Your task to perform on an android device: What is the capital of Canada? Image 0: 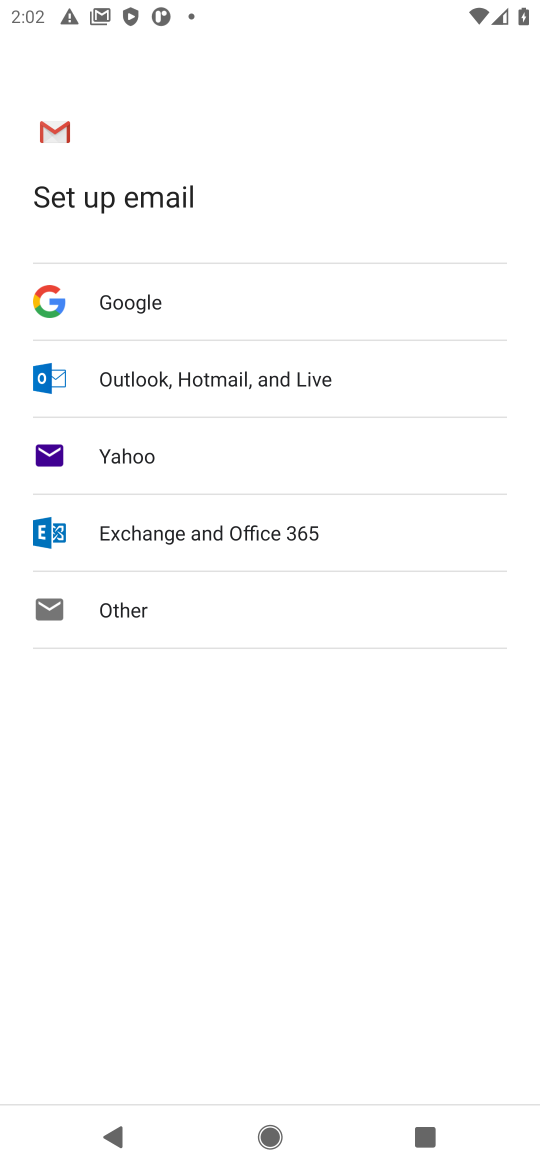
Step 0: press home button
Your task to perform on an android device: What is the capital of Canada? Image 1: 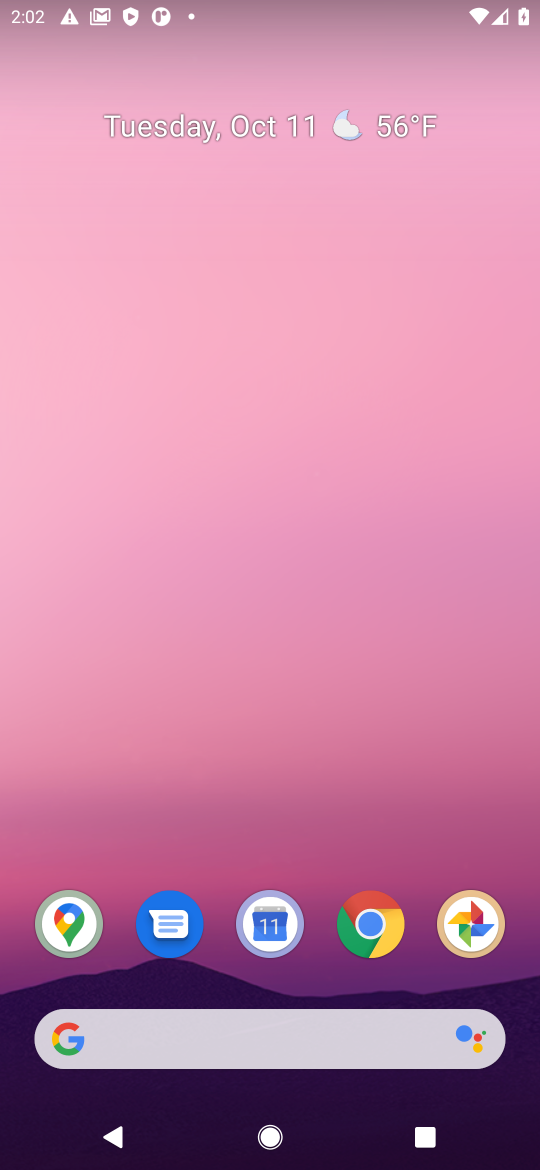
Step 1: drag from (313, 1007) to (321, 290)
Your task to perform on an android device: What is the capital of Canada? Image 2: 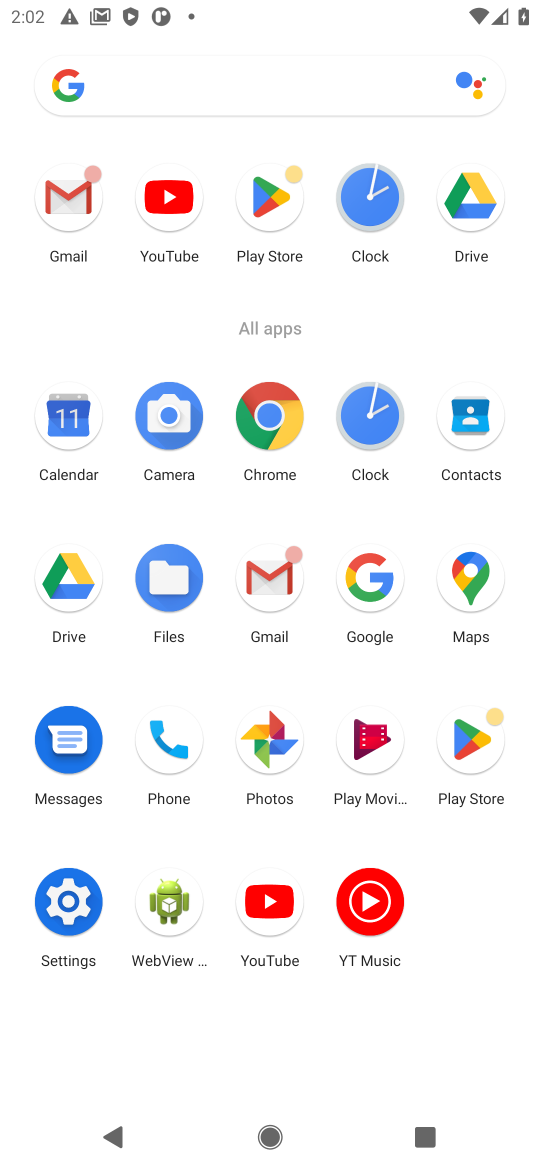
Step 2: click (375, 570)
Your task to perform on an android device: What is the capital of Canada? Image 3: 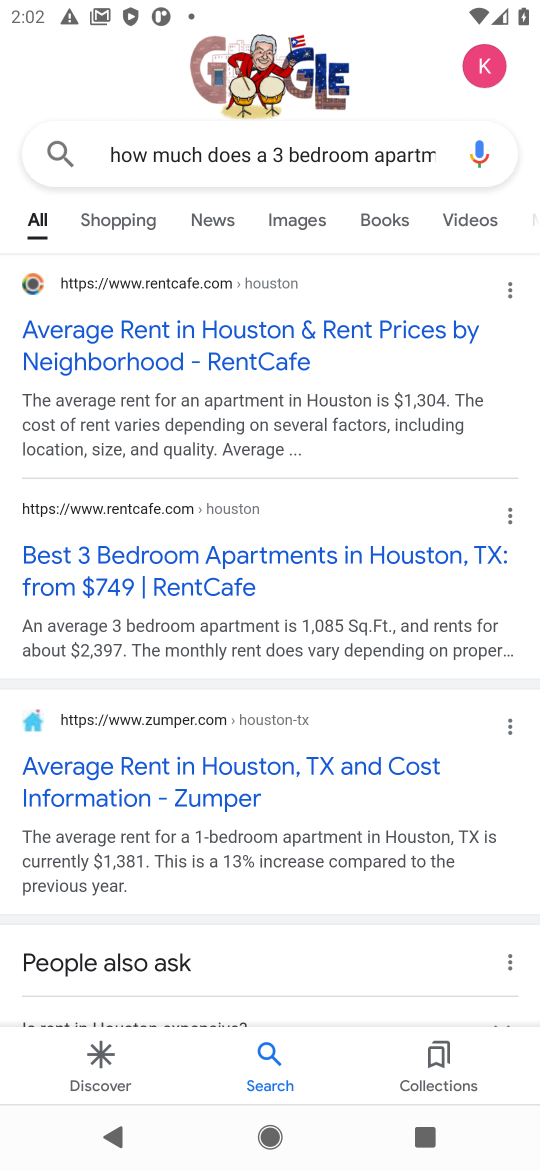
Step 3: click (306, 162)
Your task to perform on an android device: What is the capital of Canada? Image 4: 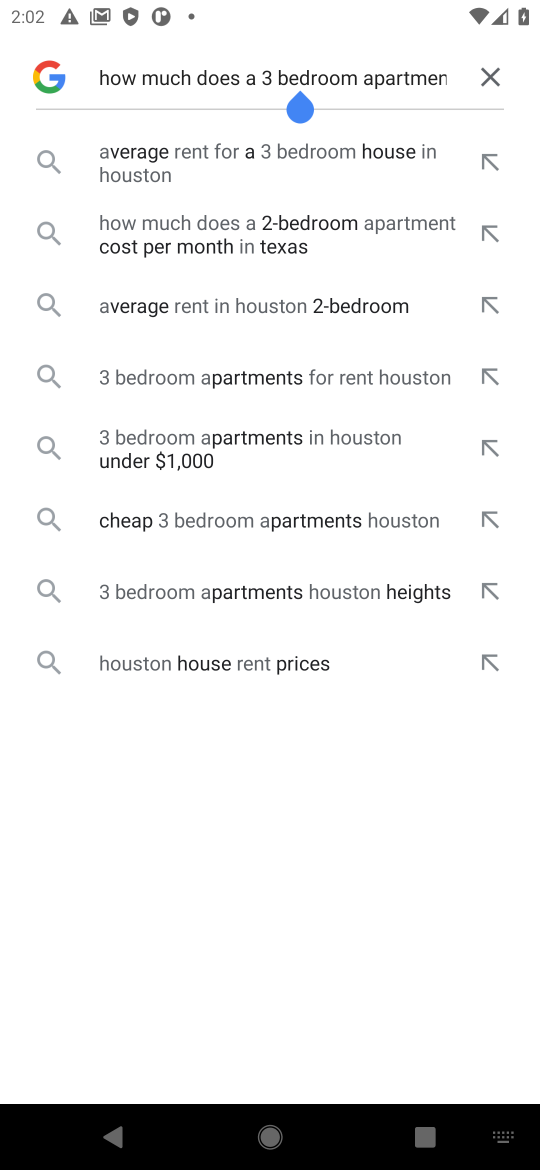
Step 4: click (497, 62)
Your task to perform on an android device: What is the capital of Canada? Image 5: 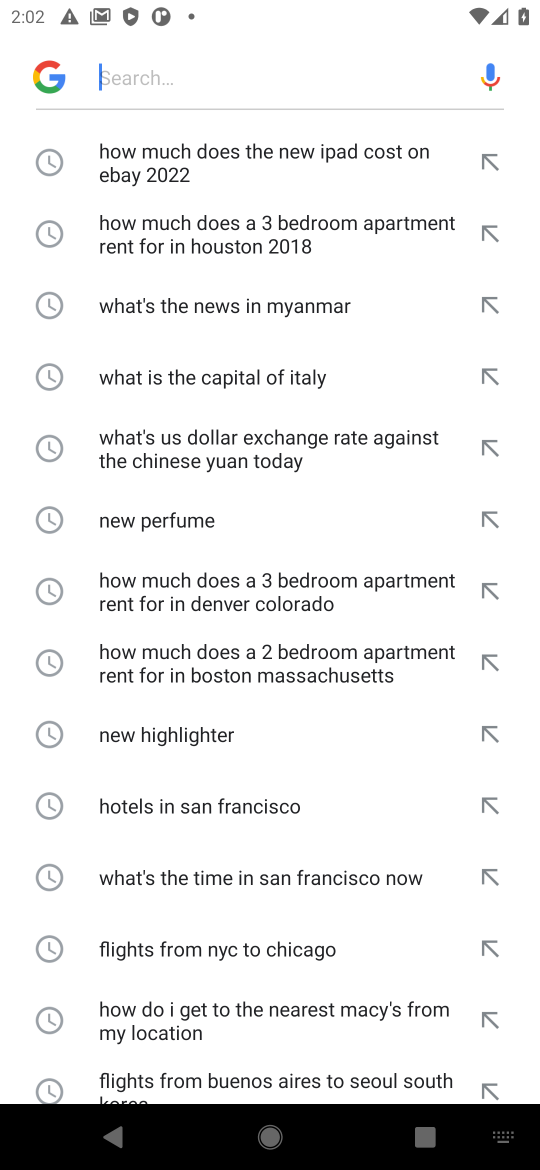
Step 5: type "What is the capital of Canada?"
Your task to perform on an android device: What is the capital of Canada? Image 6: 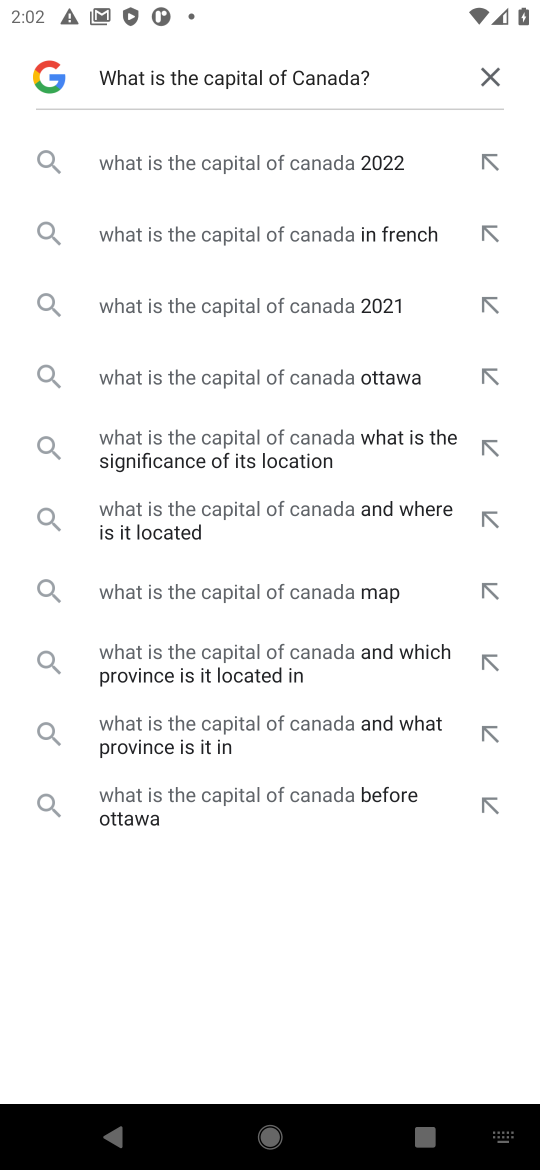
Step 6: type ""
Your task to perform on an android device: What is the capital of Canada? Image 7: 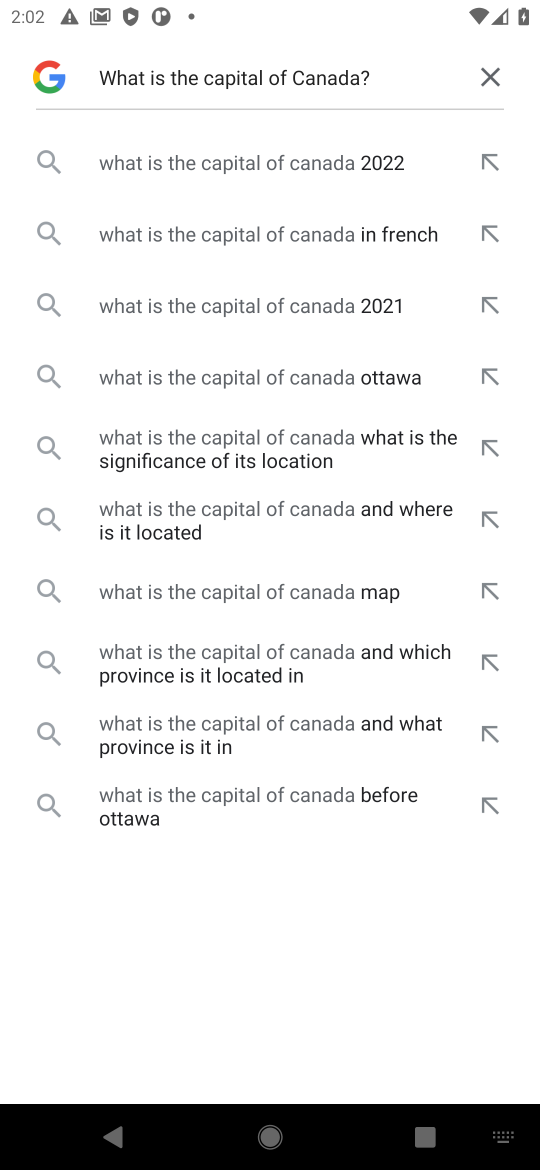
Step 7: click (280, 164)
Your task to perform on an android device: What is the capital of Canada? Image 8: 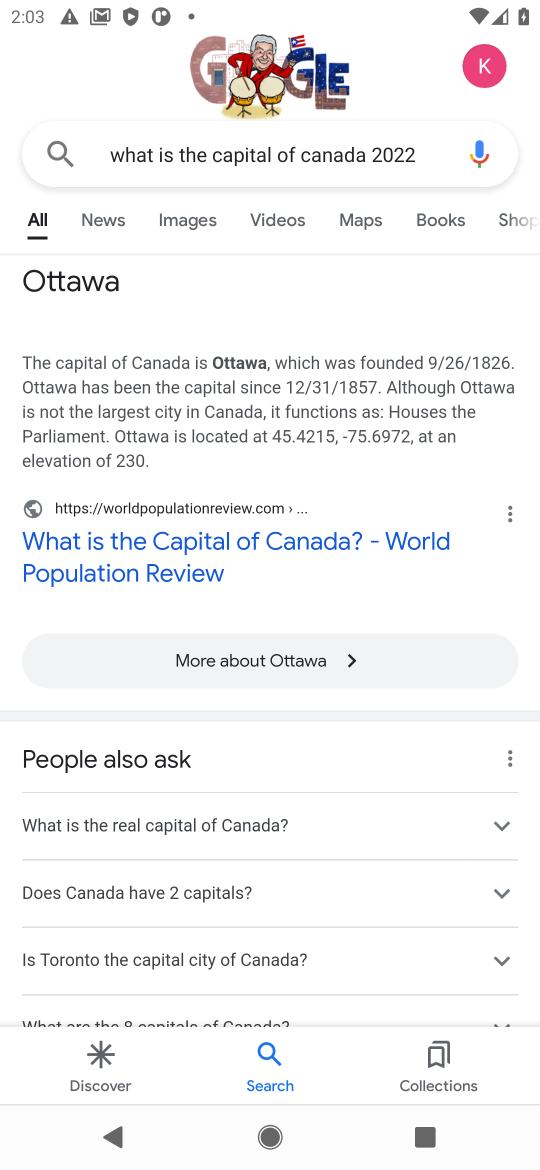
Step 8: task complete